Your task to perform on an android device: open chrome privacy settings Image 0: 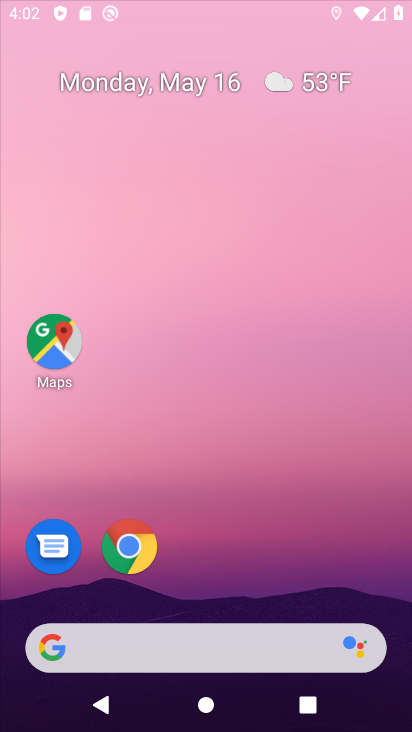
Step 0: click (307, 84)
Your task to perform on an android device: open chrome privacy settings Image 1: 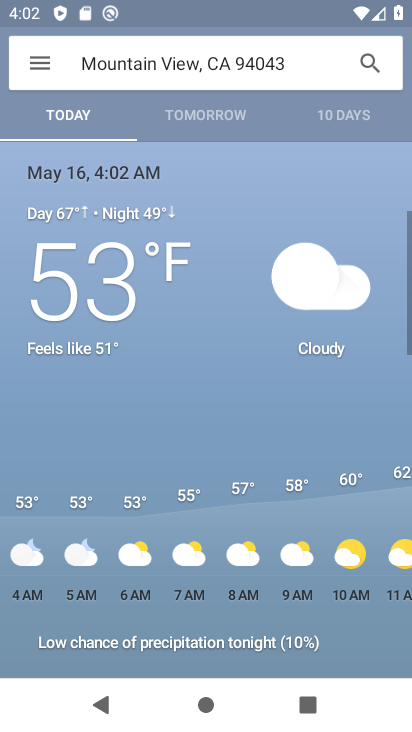
Step 1: press back button
Your task to perform on an android device: open chrome privacy settings Image 2: 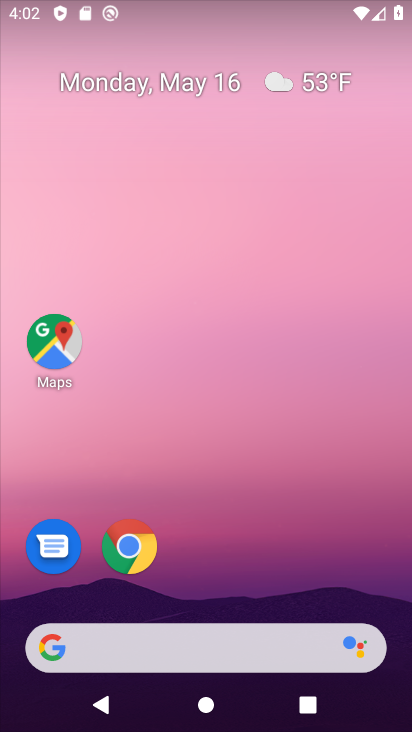
Step 2: drag from (124, 572) to (202, 572)
Your task to perform on an android device: open chrome privacy settings Image 3: 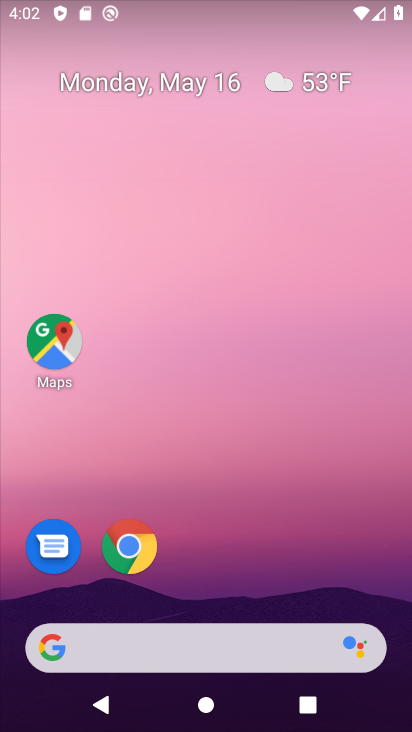
Step 3: click (139, 557)
Your task to perform on an android device: open chrome privacy settings Image 4: 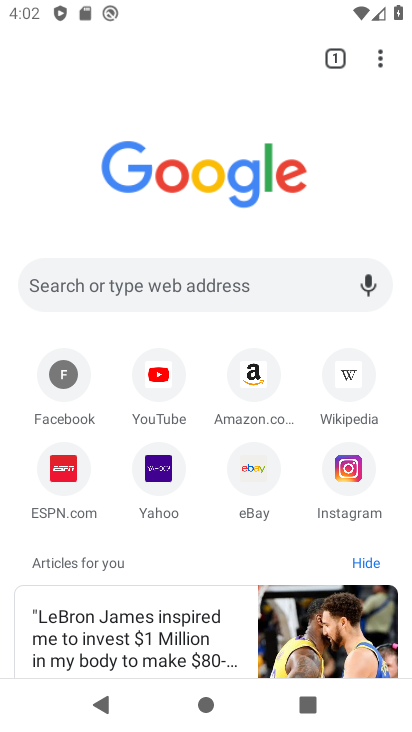
Step 4: drag from (388, 66) to (269, 489)
Your task to perform on an android device: open chrome privacy settings Image 5: 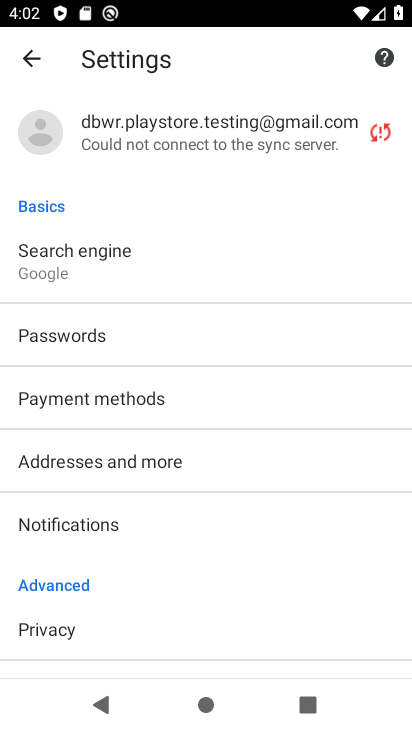
Step 5: drag from (196, 597) to (254, 401)
Your task to perform on an android device: open chrome privacy settings Image 6: 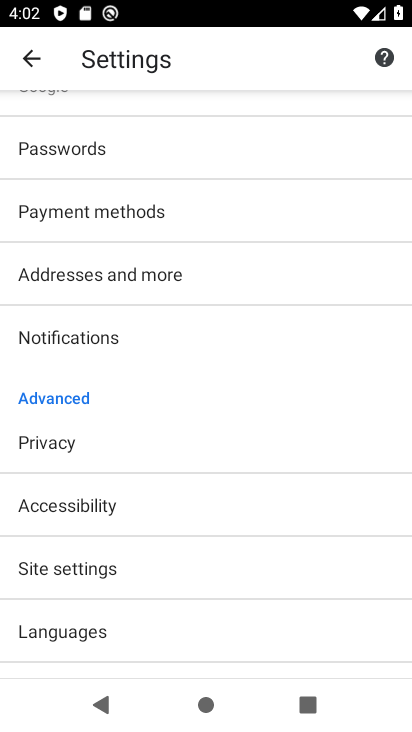
Step 6: click (128, 460)
Your task to perform on an android device: open chrome privacy settings Image 7: 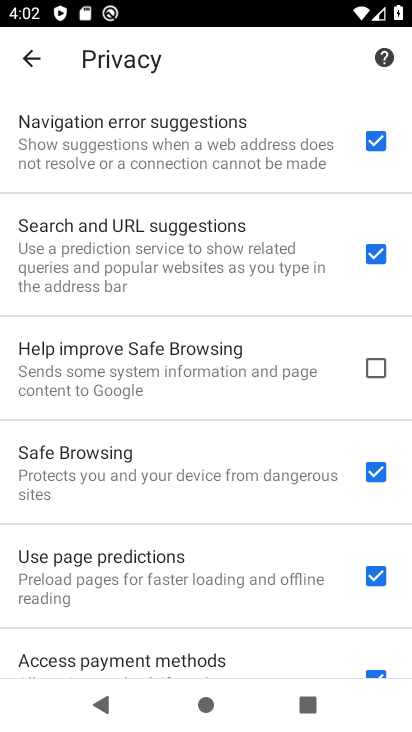
Step 7: task complete